Your task to perform on an android device: Check the weather Image 0: 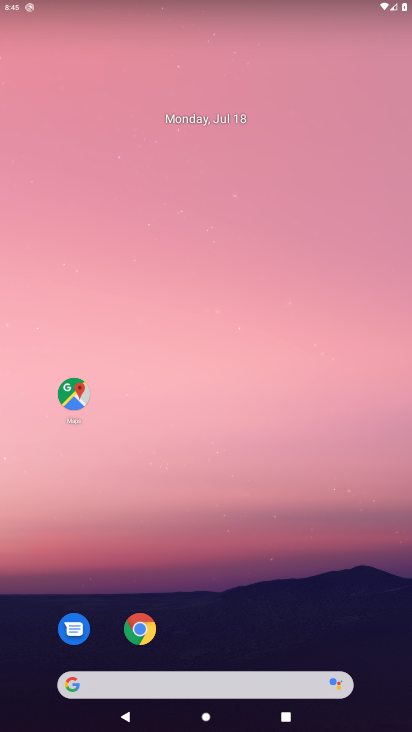
Step 0: click (150, 678)
Your task to perform on an android device: Check the weather Image 1: 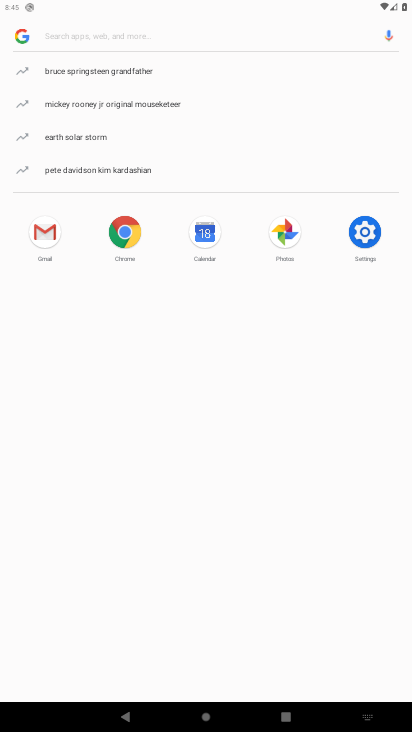
Step 1: click (169, 18)
Your task to perform on an android device: Check the weather Image 2: 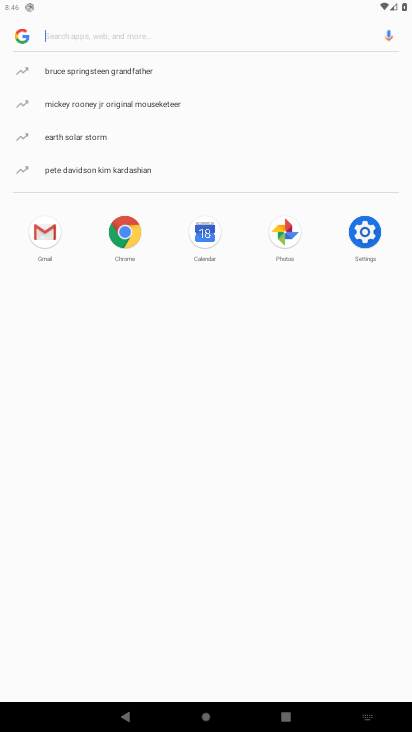
Step 2: type "weather"
Your task to perform on an android device: Check the weather Image 3: 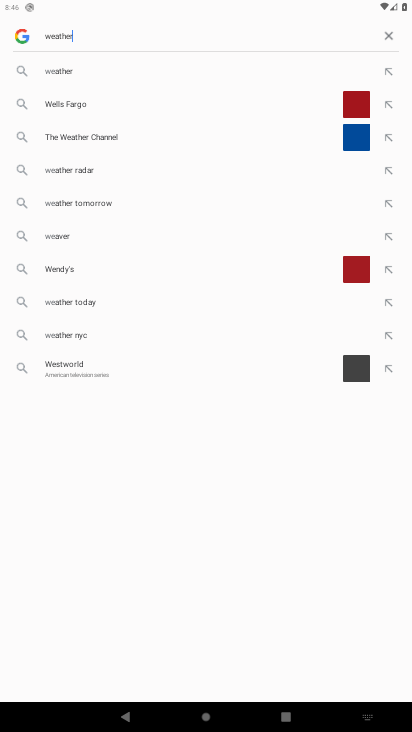
Step 3: type ""
Your task to perform on an android device: Check the weather Image 4: 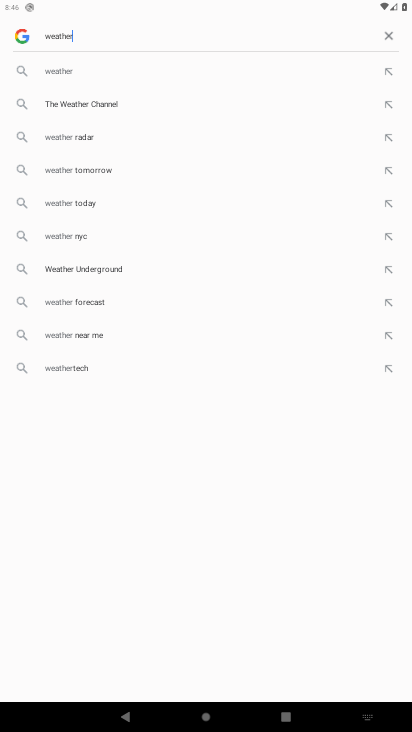
Step 4: click (102, 77)
Your task to perform on an android device: Check the weather Image 5: 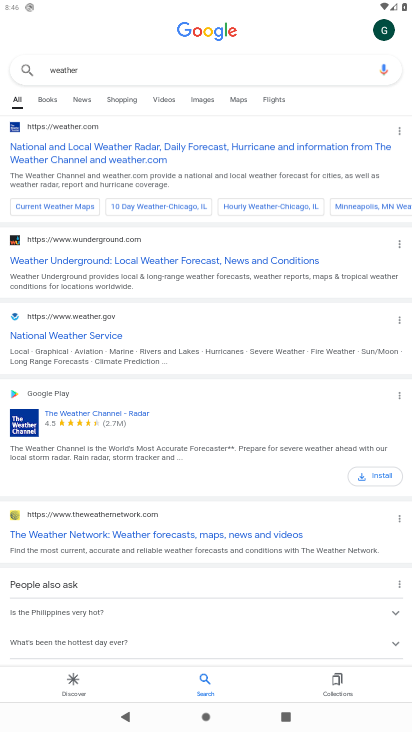
Step 5: task complete